Your task to perform on an android device: When is my next appointment? Image 0: 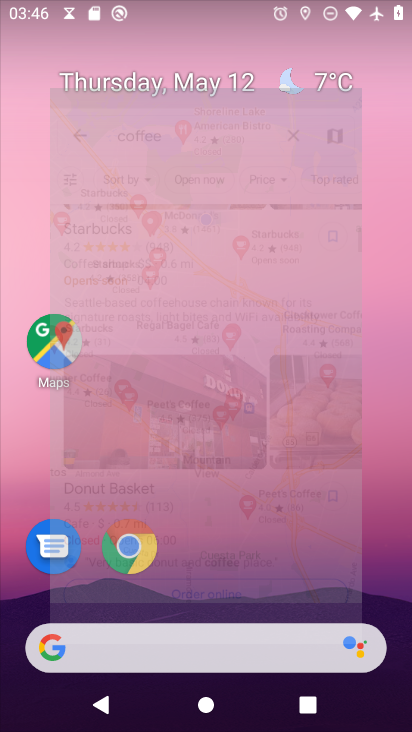
Step 0: press home button
Your task to perform on an android device: When is my next appointment? Image 1: 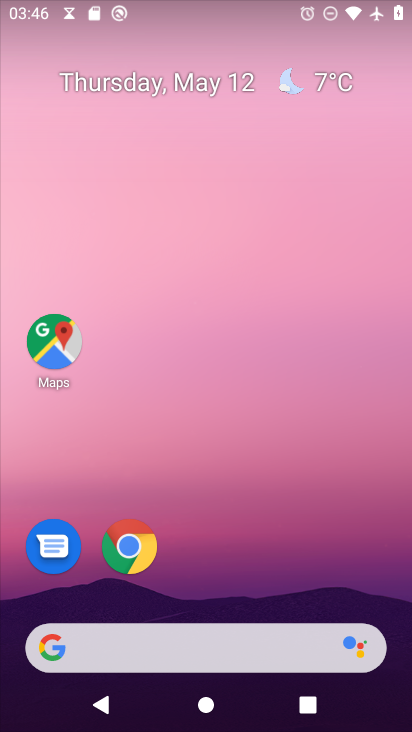
Step 1: drag from (170, 647) to (318, 175)
Your task to perform on an android device: When is my next appointment? Image 2: 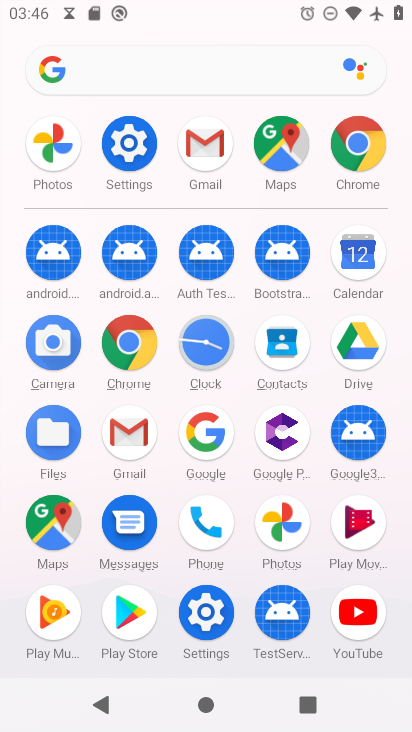
Step 2: click (351, 263)
Your task to perform on an android device: When is my next appointment? Image 3: 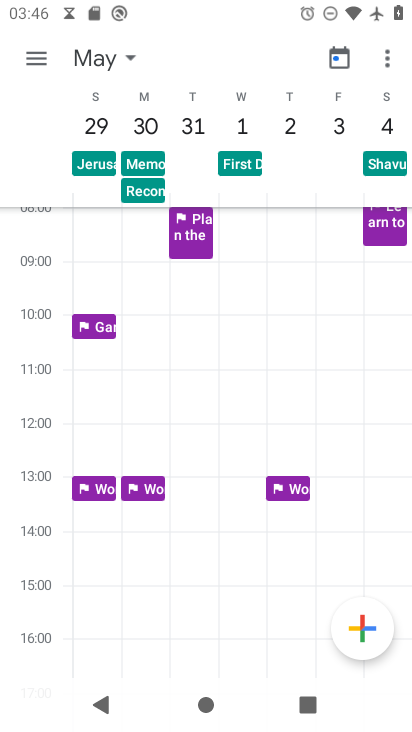
Step 3: click (81, 57)
Your task to perform on an android device: When is my next appointment? Image 4: 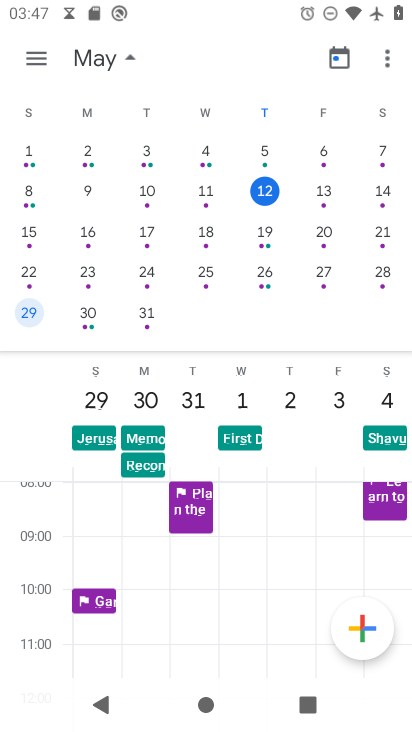
Step 4: click (268, 192)
Your task to perform on an android device: When is my next appointment? Image 5: 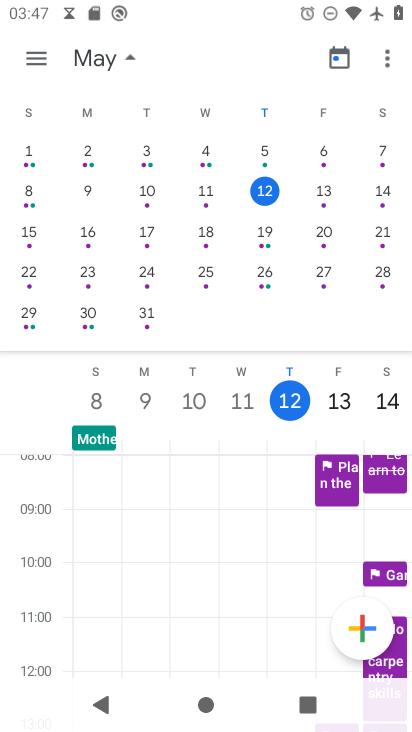
Step 5: click (43, 49)
Your task to perform on an android device: When is my next appointment? Image 6: 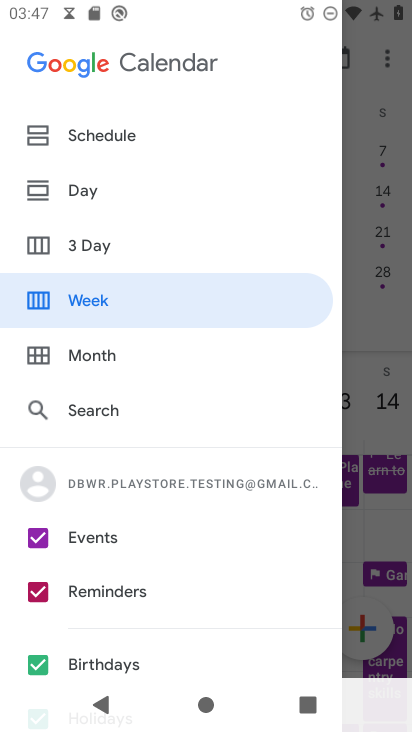
Step 6: click (129, 135)
Your task to perform on an android device: When is my next appointment? Image 7: 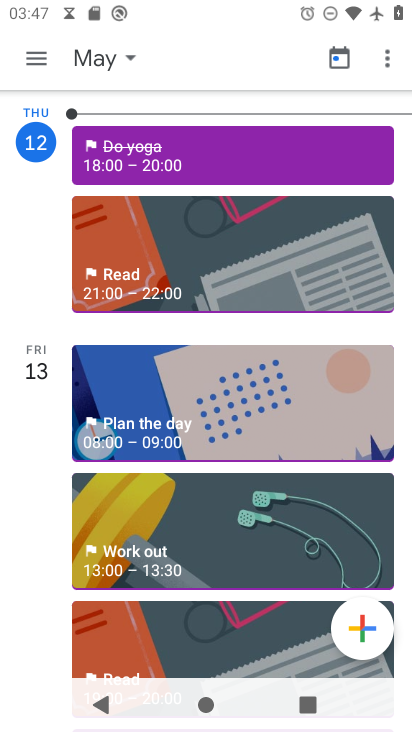
Step 7: click (146, 161)
Your task to perform on an android device: When is my next appointment? Image 8: 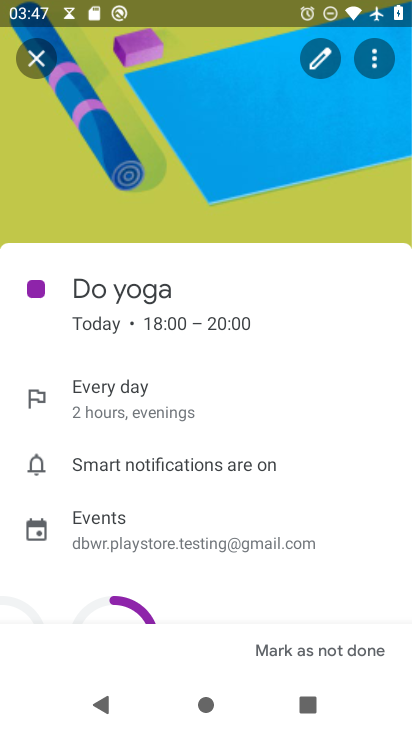
Step 8: task complete